Your task to perform on an android device: open a new tab in the chrome app Image 0: 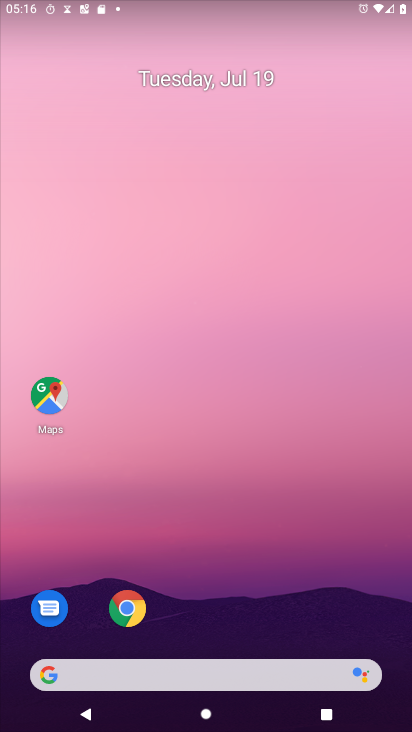
Step 0: click (127, 610)
Your task to perform on an android device: open a new tab in the chrome app Image 1: 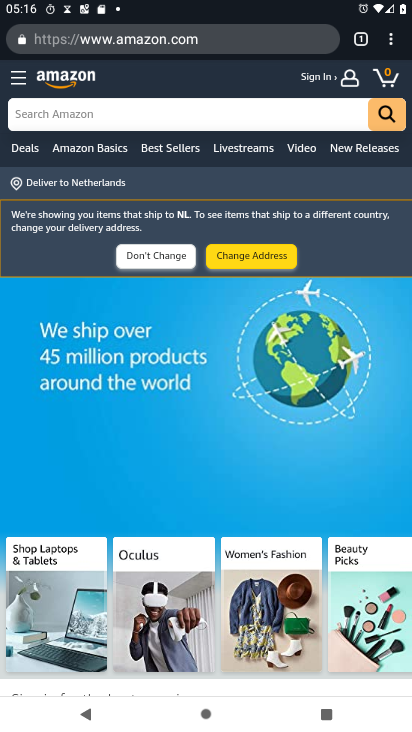
Step 1: click (391, 42)
Your task to perform on an android device: open a new tab in the chrome app Image 2: 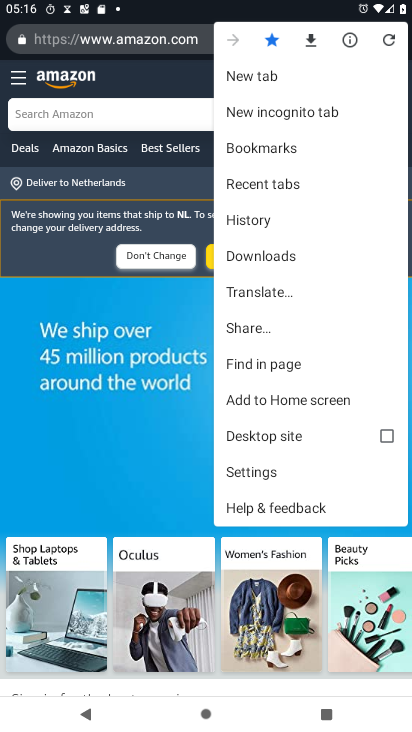
Step 2: click (252, 80)
Your task to perform on an android device: open a new tab in the chrome app Image 3: 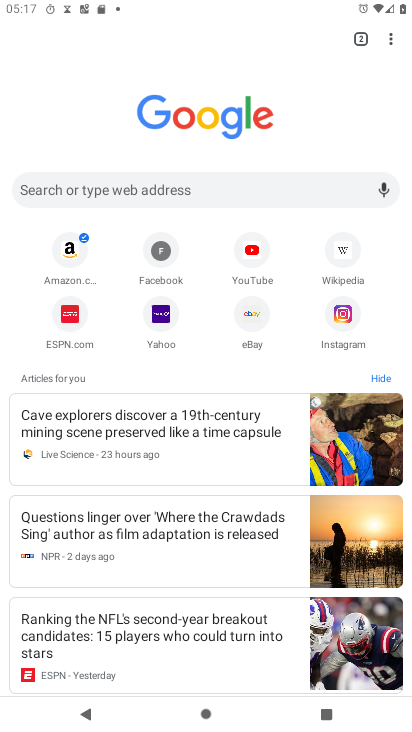
Step 3: task complete